Your task to perform on an android device: Open wifi settings Image 0: 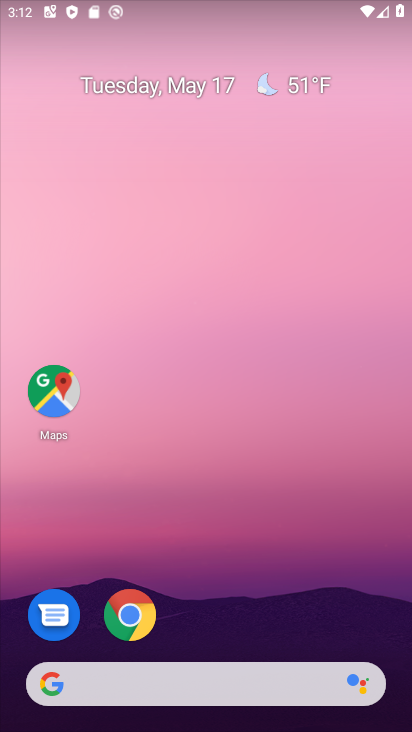
Step 0: press home button
Your task to perform on an android device: Open wifi settings Image 1: 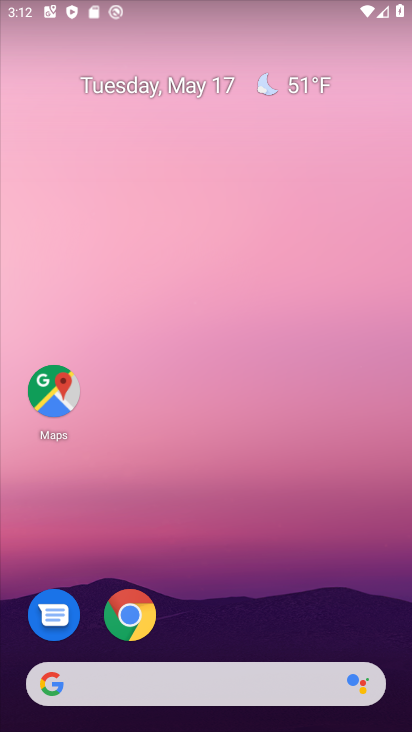
Step 1: drag from (208, 635) to (208, 160)
Your task to perform on an android device: Open wifi settings Image 2: 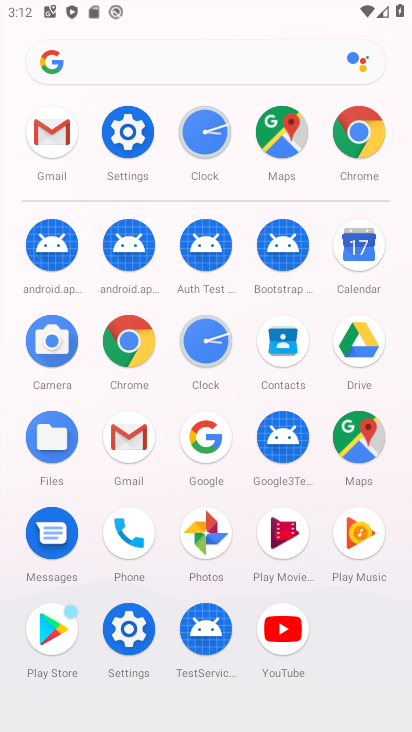
Step 2: click (125, 625)
Your task to perform on an android device: Open wifi settings Image 3: 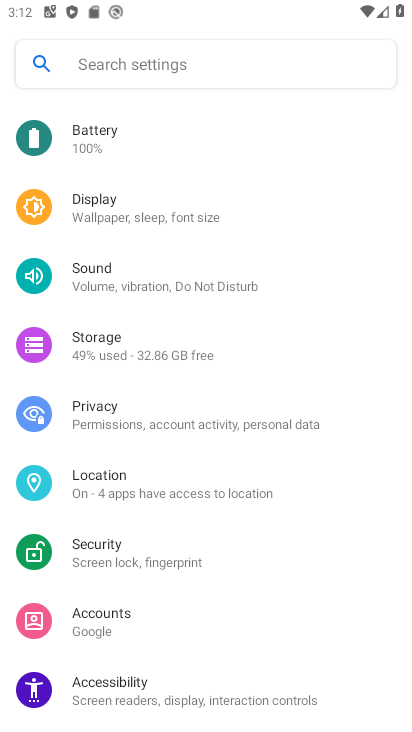
Step 3: drag from (148, 157) to (200, 634)
Your task to perform on an android device: Open wifi settings Image 4: 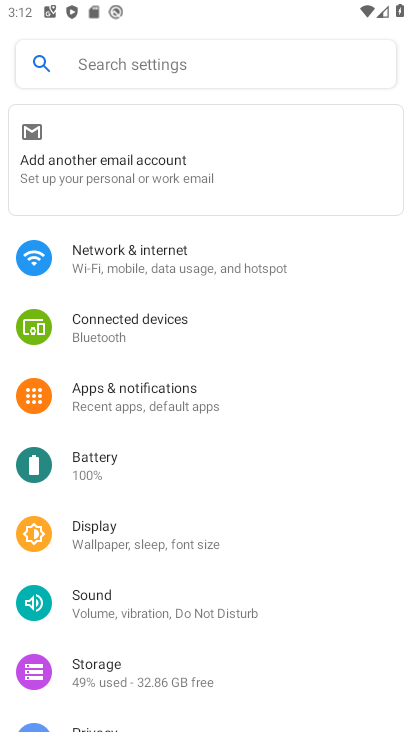
Step 4: click (166, 253)
Your task to perform on an android device: Open wifi settings Image 5: 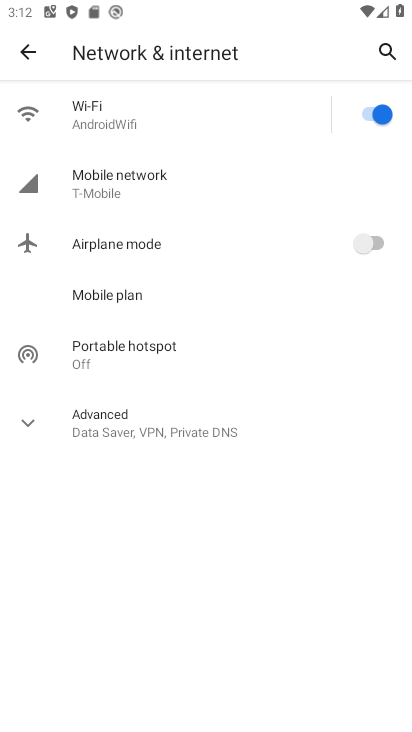
Step 5: click (146, 106)
Your task to perform on an android device: Open wifi settings Image 6: 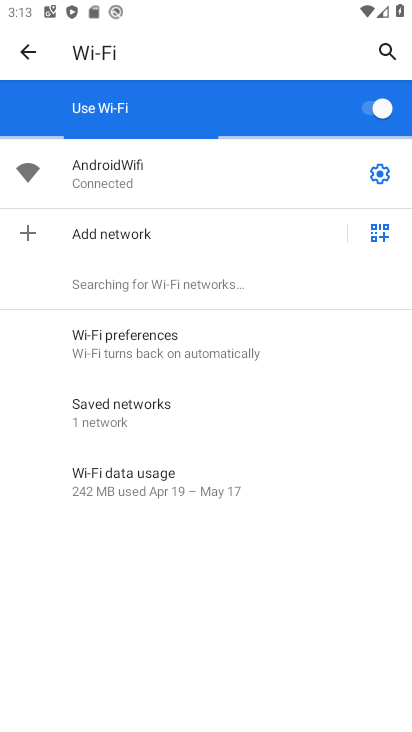
Step 6: task complete